Your task to perform on an android device: Go to Reddit.com Image 0: 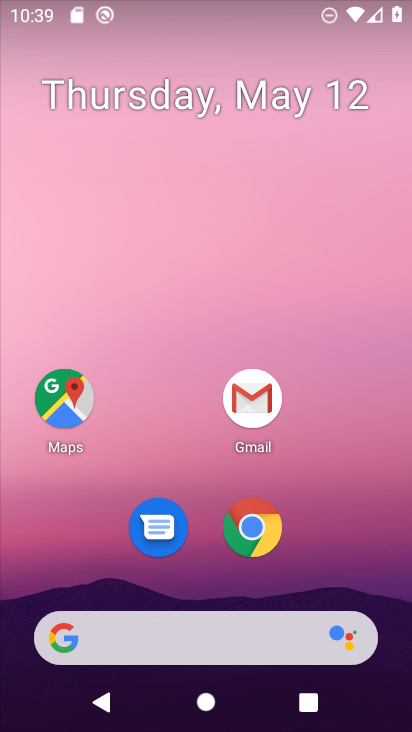
Step 0: click (257, 526)
Your task to perform on an android device: Go to Reddit.com Image 1: 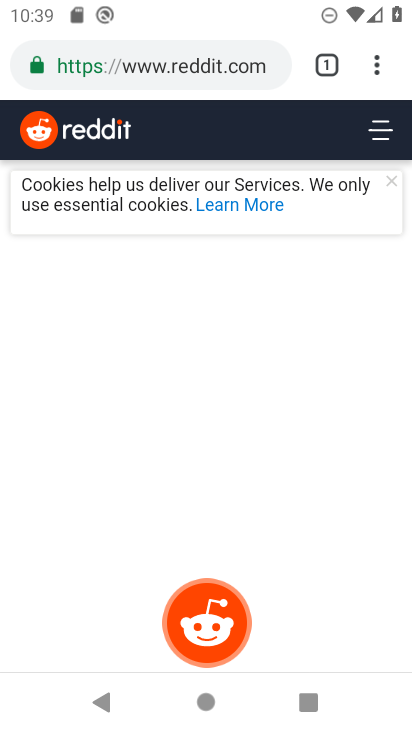
Step 1: task complete